Your task to perform on an android device: open app "Messenger Lite" Image 0: 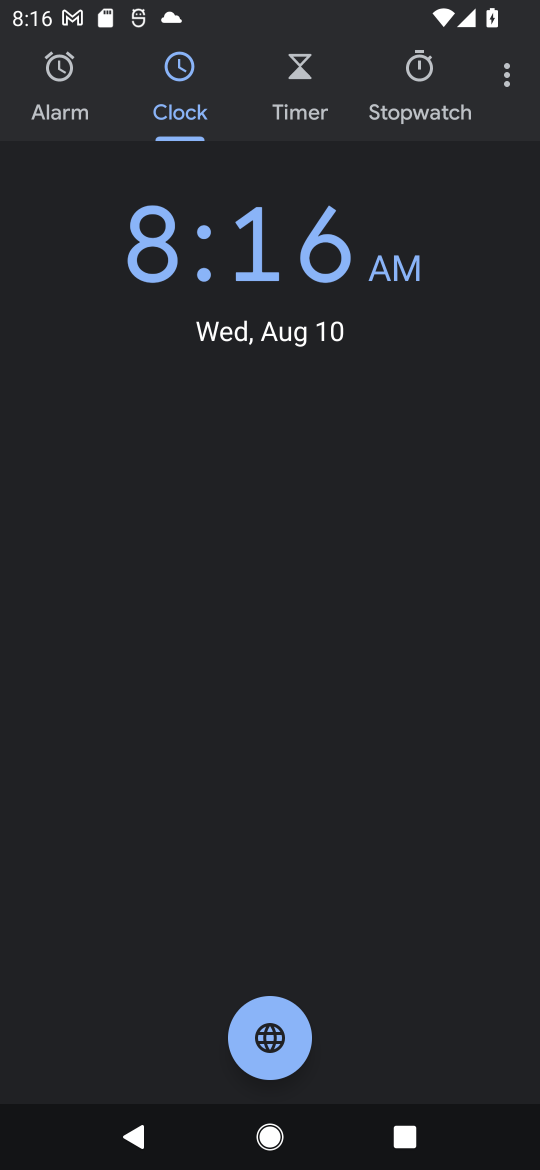
Step 0: press home button
Your task to perform on an android device: open app "Messenger Lite" Image 1: 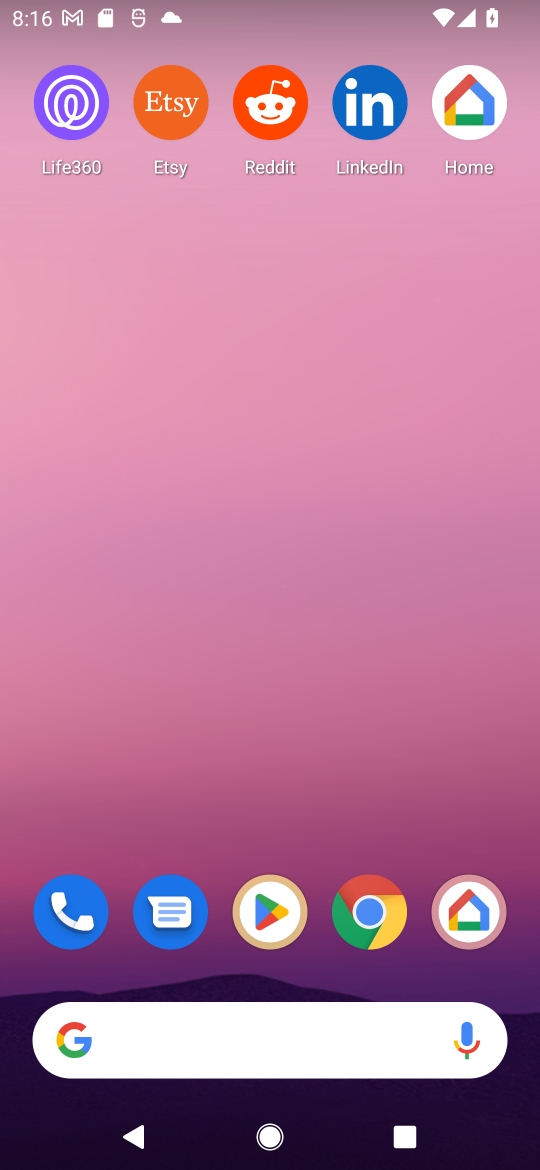
Step 1: drag from (517, 1008) to (329, 71)
Your task to perform on an android device: open app "Messenger Lite" Image 2: 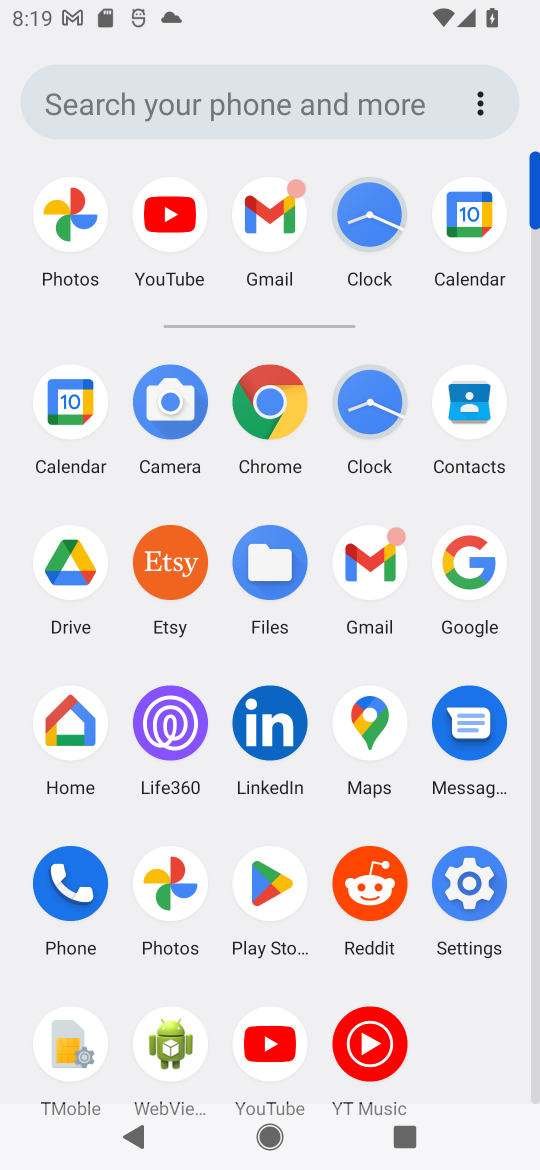
Step 2: click (295, 884)
Your task to perform on an android device: open app "Messenger Lite" Image 3: 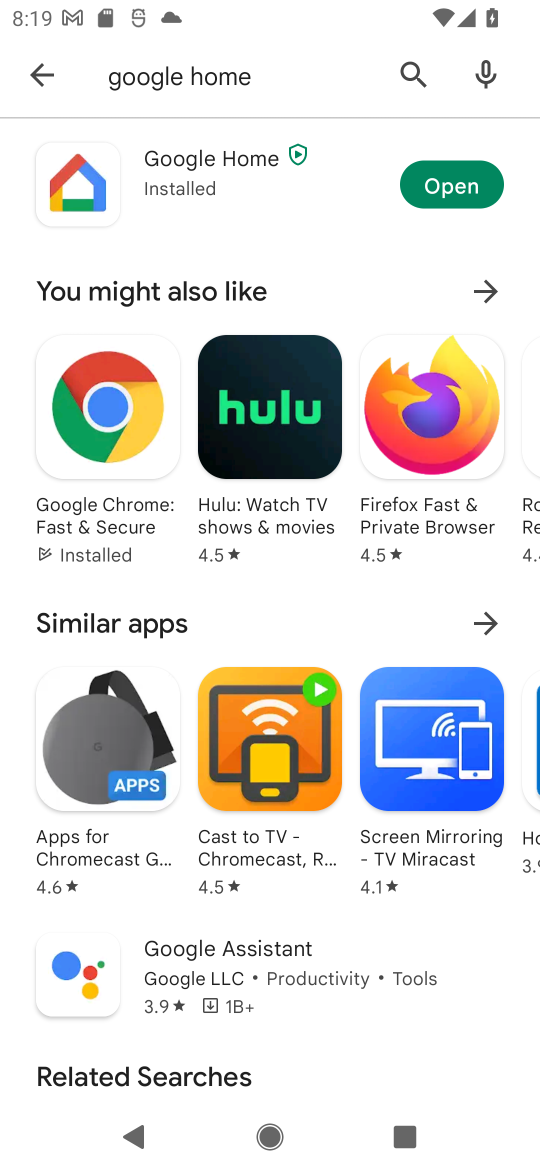
Step 3: press back button
Your task to perform on an android device: open app "Messenger Lite" Image 4: 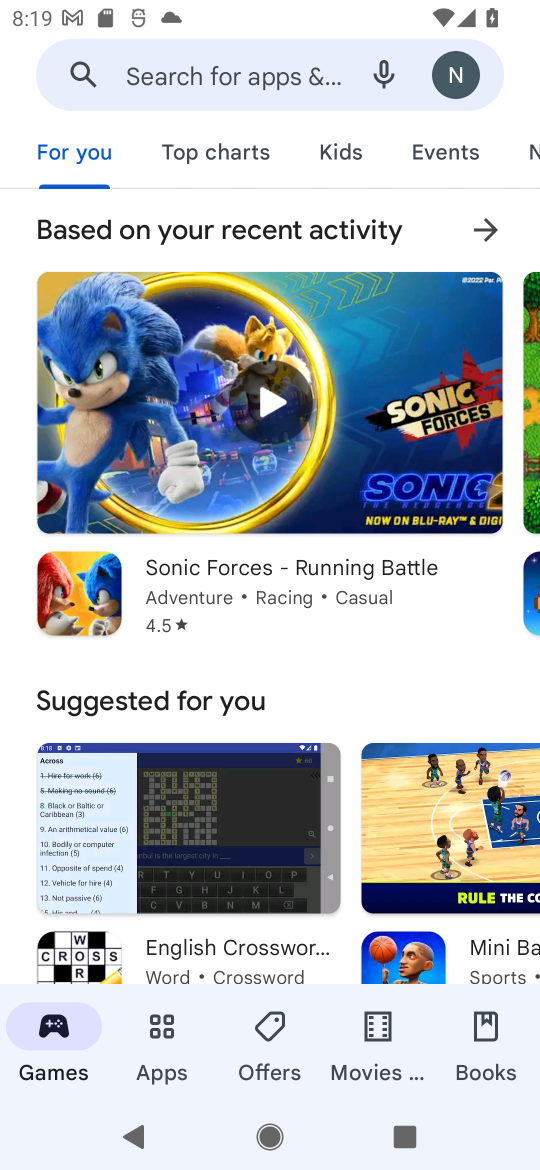
Step 4: click (222, 77)
Your task to perform on an android device: open app "Messenger Lite" Image 5: 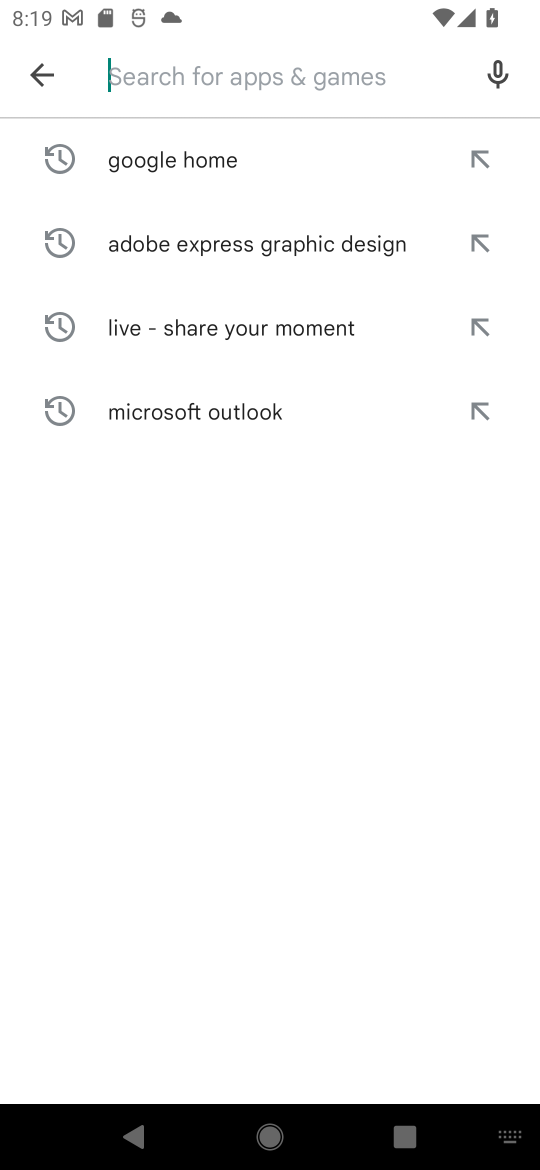
Step 5: type "Messenger Lite"
Your task to perform on an android device: open app "Messenger Lite" Image 6: 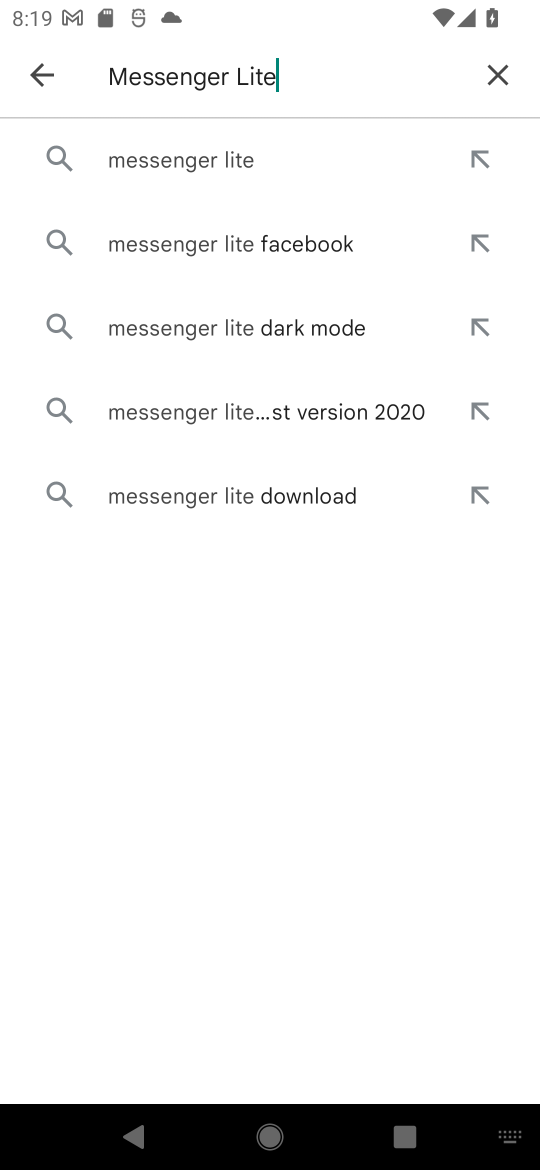
Step 6: click (226, 172)
Your task to perform on an android device: open app "Messenger Lite" Image 7: 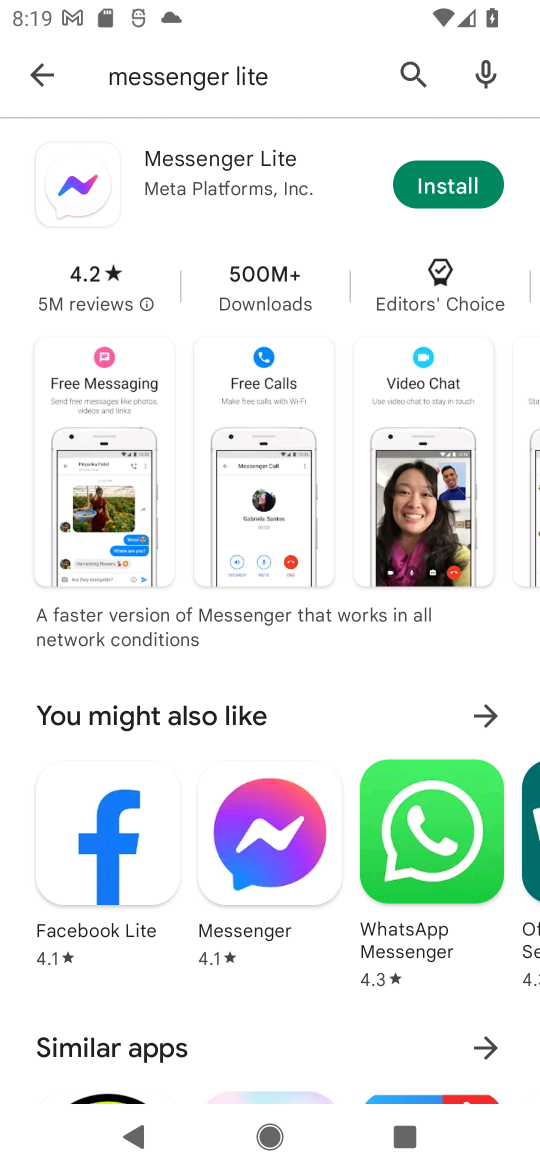
Step 7: task complete